Your task to perform on an android device: Is it going to rain today? Image 0: 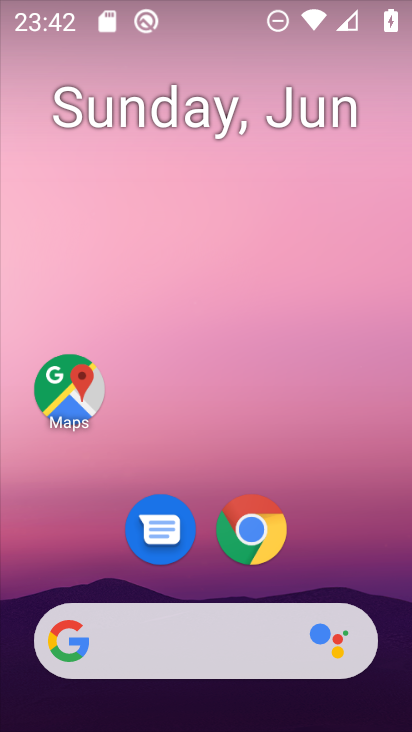
Step 0: drag from (393, 616) to (326, 119)
Your task to perform on an android device: Is it going to rain today? Image 1: 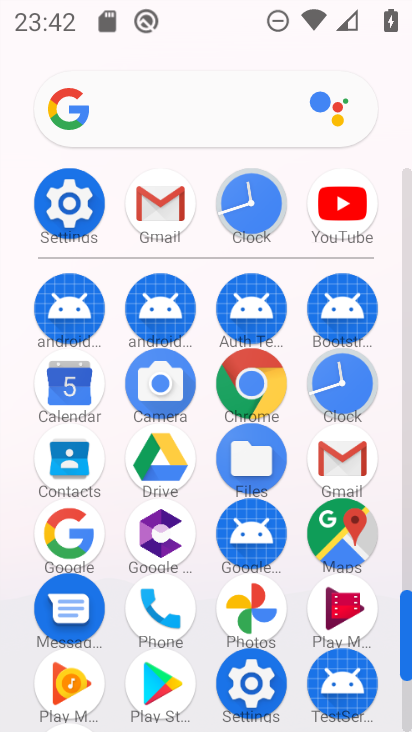
Step 1: click (234, 117)
Your task to perform on an android device: Is it going to rain today? Image 2: 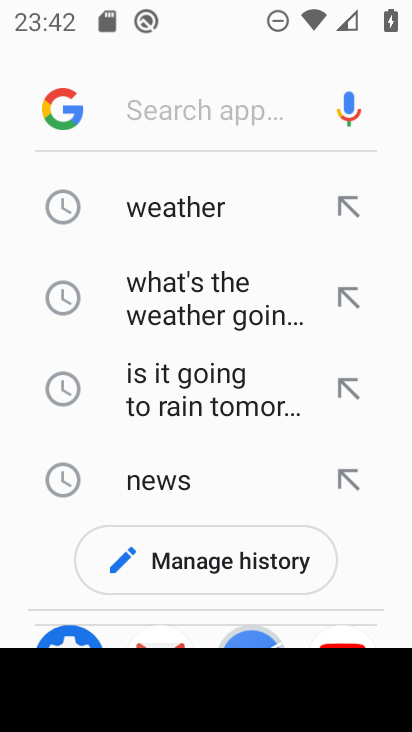
Step 2: click (165, 198)
Your task to perform on an android device: Is it going to rain today? Image 3: 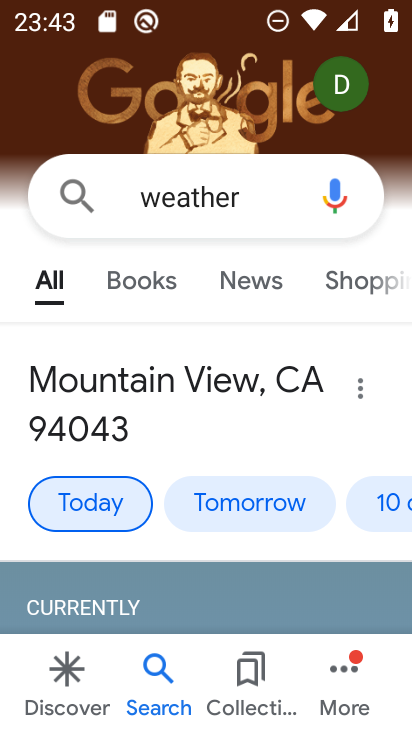
Step 3: task complete